Your task to perform on an android device: check google app version Image 0: 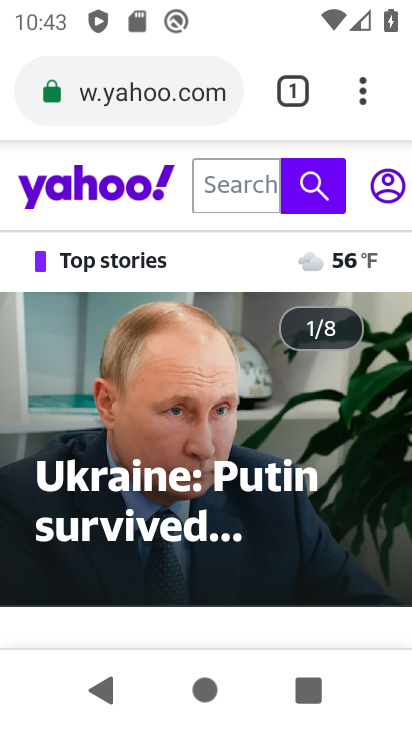
Step 0: press home button
Your task to perform on an android device: check google app version Image 1: 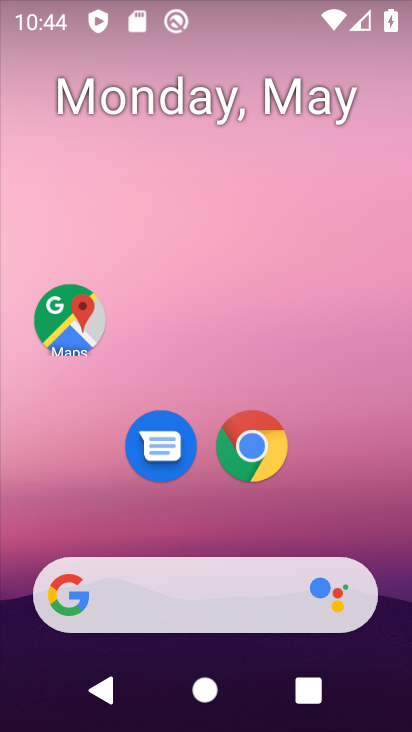
Step 1: drag from (296, 451) to (311, 194)
Your task to perform on an android device: check google app version Image 2: 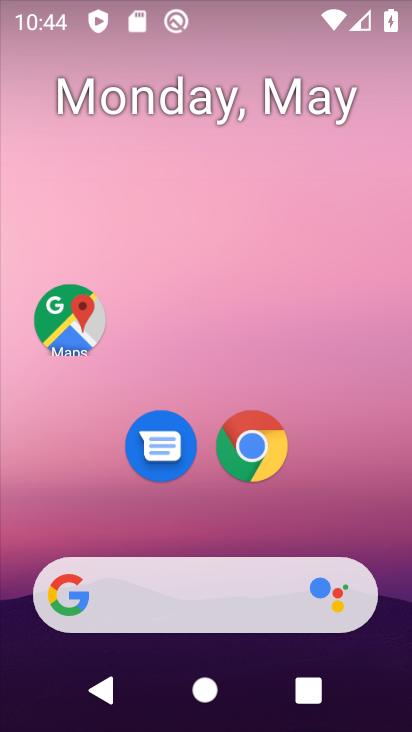
Step 2: drag from (381, 466) to (330, 46)
Your task to perform on an android device: check google app version Image 3: 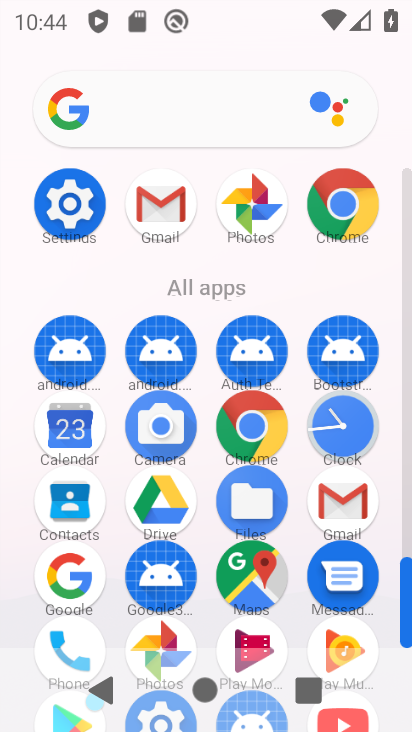
Step 3: click (61, 216)
Your task to perform on an android device: check google app version Image 4: 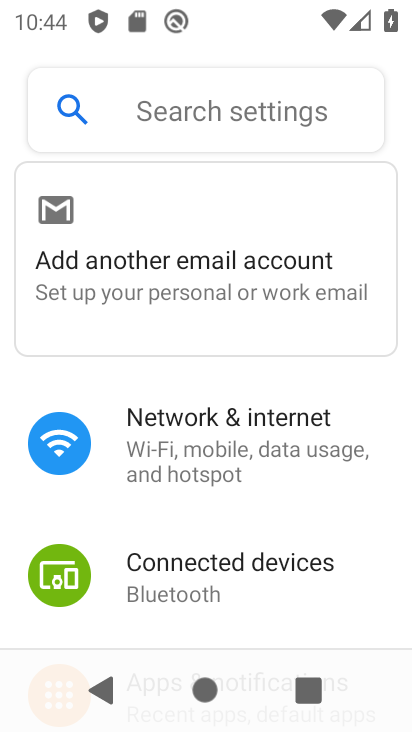
Step 4: drag from (184, 532) to (188, 108)
Your task to perform on an android device: check google app version Image 5: 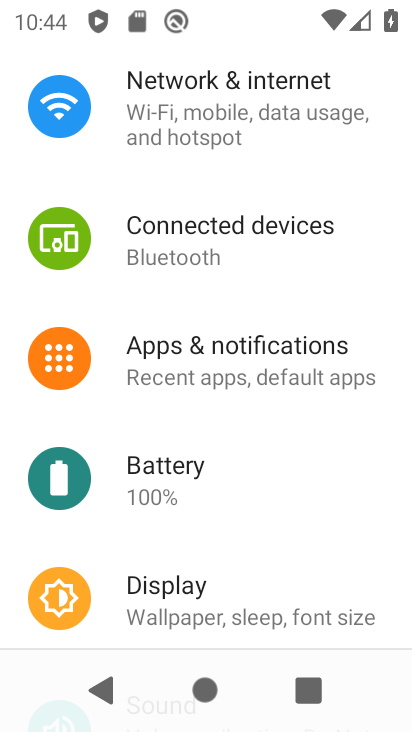
Step 5: drag from (235, 517) to (213, 90)
Your task to perform on an android device: check google app version Image 6: 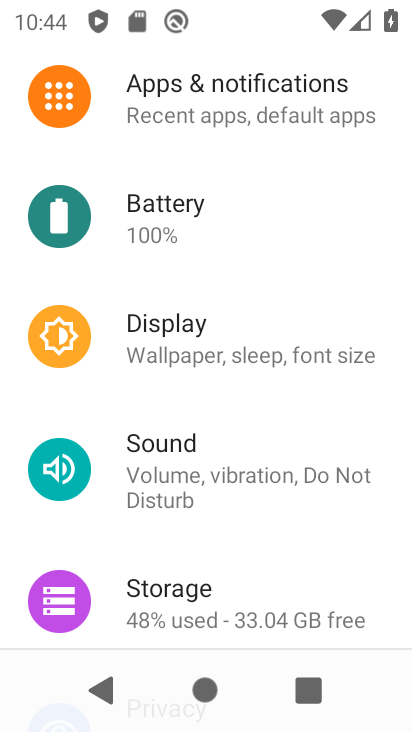
Step 6: press home button
Your task to perform on an android device: check google app version Image 7: 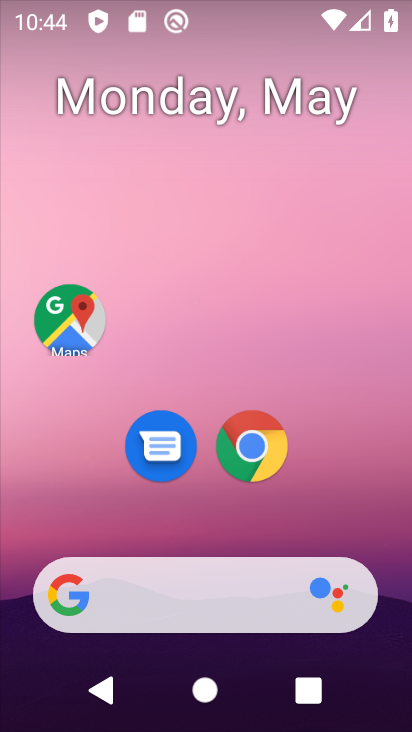
Step 7: drag from (341, 414) to (269, 39)
Your task to perform on an android device: check google app version Image 8: 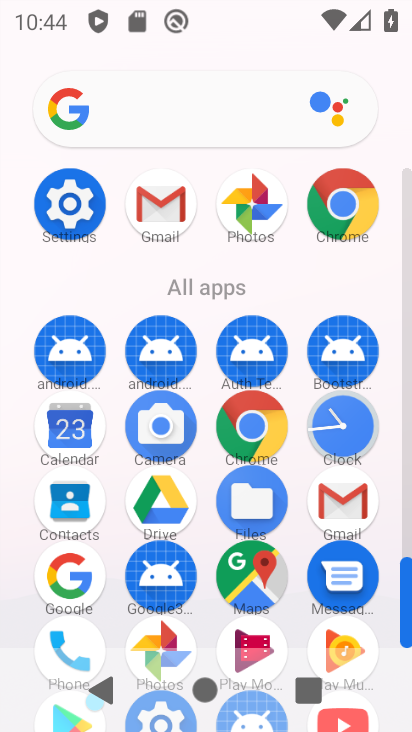
Step 8: click (71, 569)
Your task to perform on an android device: check google app version Image 9: 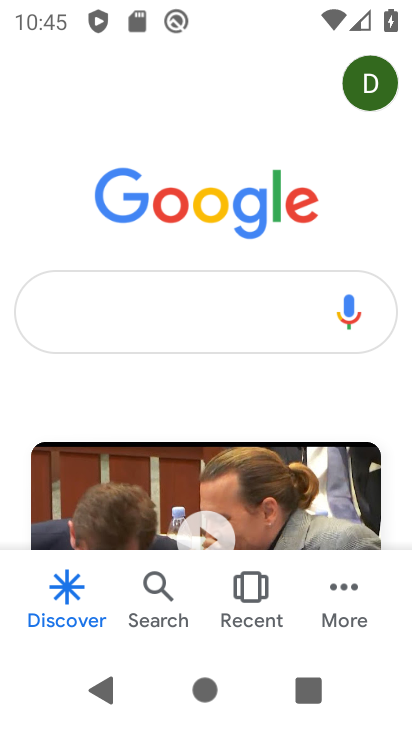
Step 9: click (356, 605)
Your task to perform on an android device: check google app version Image 10: 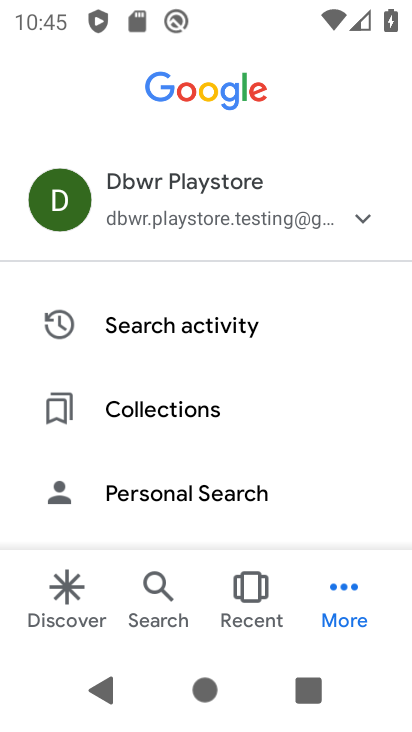
Step 10: drag from (224, 531) to (183, 79)
Your task to perform on an android device: check google app version Image 11: 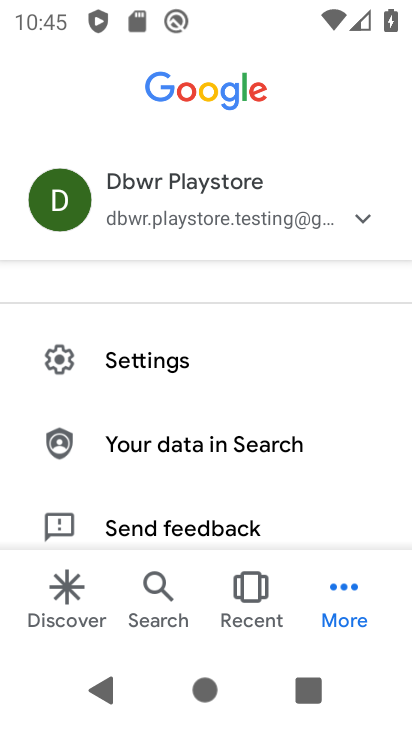
Step 11: drag from (221, 483) to (213, 127)
Your task to perform on an android device: check google app version Image 12: 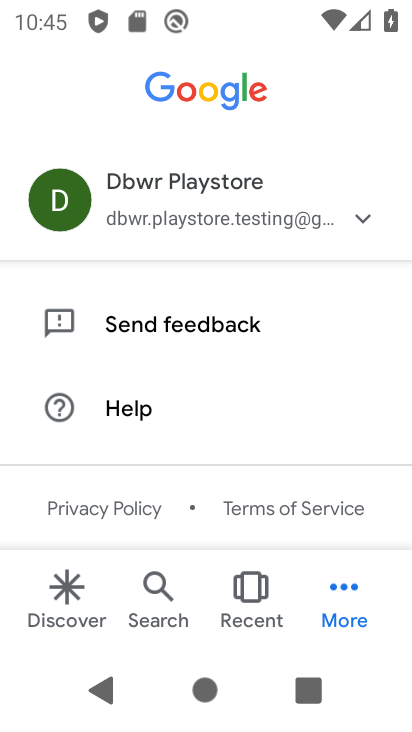
Step 12: drag from (179, 461) to (176, 170)
Your task to perform on an android device: check google app version Image 13: 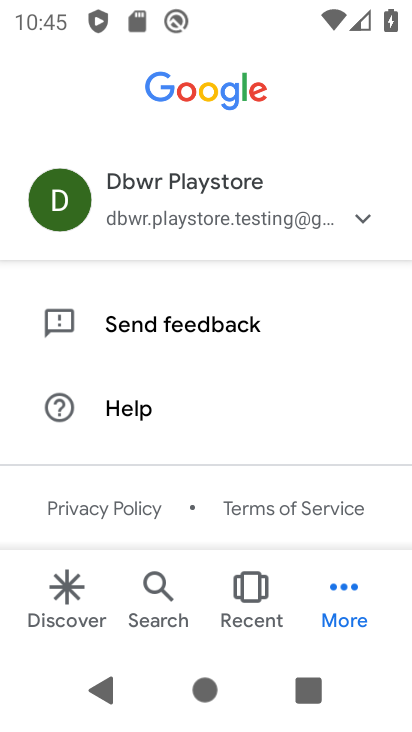
Step 13: drag from (168, 300) to (182, 506)
Your task to perform on an android device: check google app version Image 14: 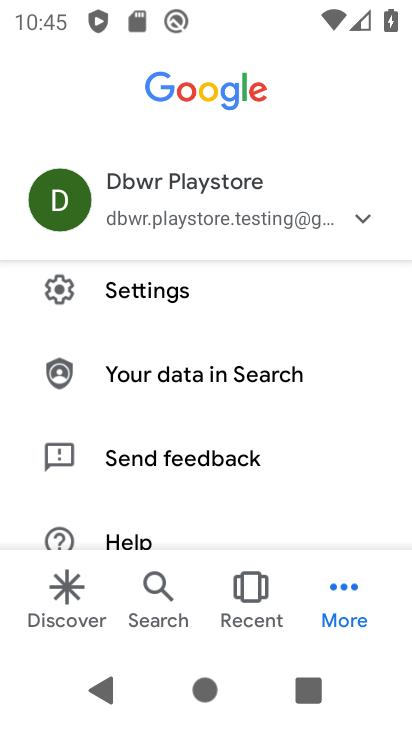
Step 14: click (110, 287)
Your task to perform on an android device: check google app version Image 15: 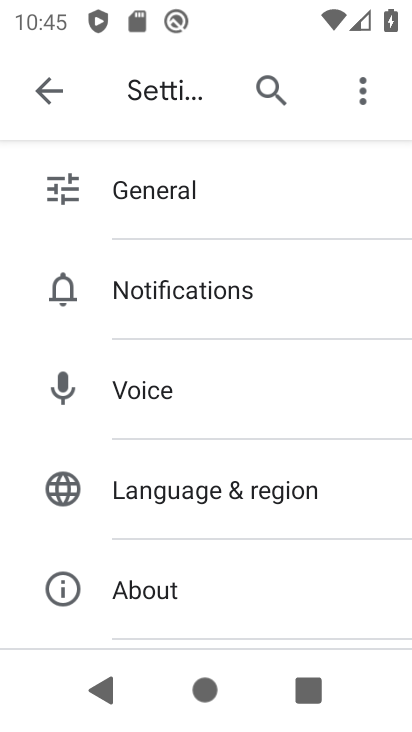
Step 15: click (179, 616)
Your task to perform on an android device: check google app version Image 16: 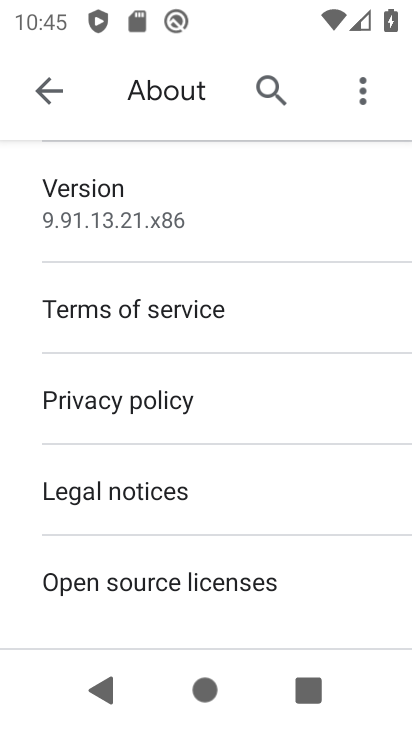
Step 16: click (100, 216)
Your task to perform on an android device: check google app version Image 17: 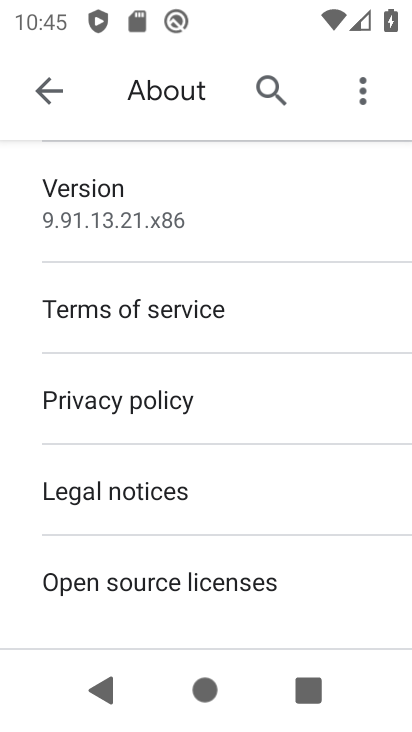
Step 17: task complete